Your task to perform on an android device: add a contact in the contacts app Image 0: 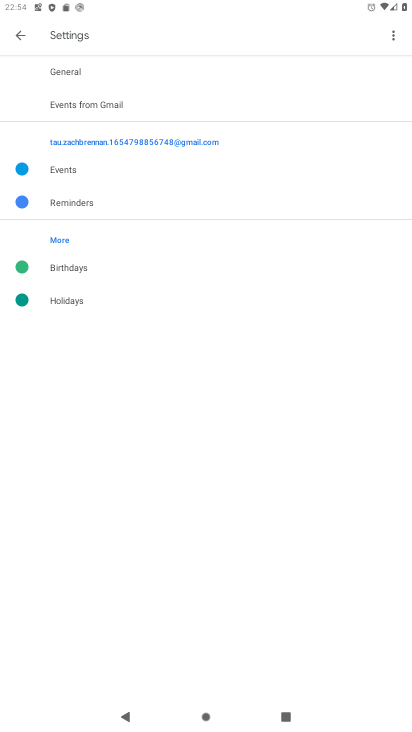
Step 0: press home button
Your task to perform on an android device: add a contact in the contacts app Image 1: 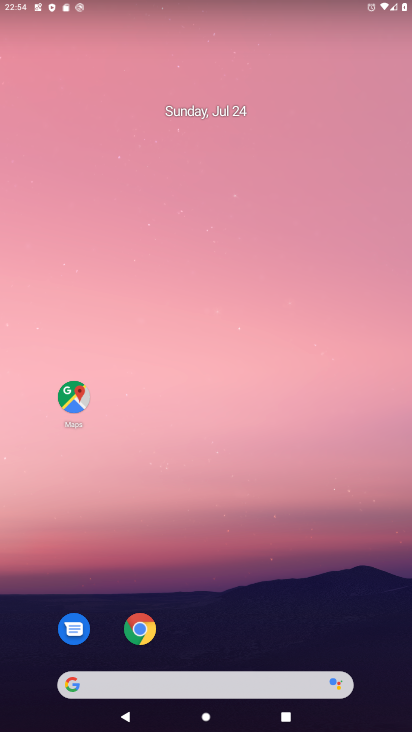
Step 1: drag from (259, 629) to (278, 302)
Your task to perform on an android device: add a contact in the contacts app Image 2: 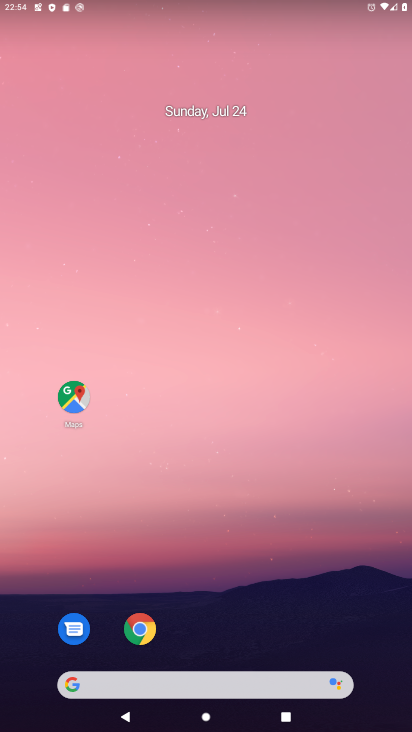
Step 2: drag from (164, 658) to (309, 77)
Your task to perform on an android device: add a contact in the contacts app Image 3: 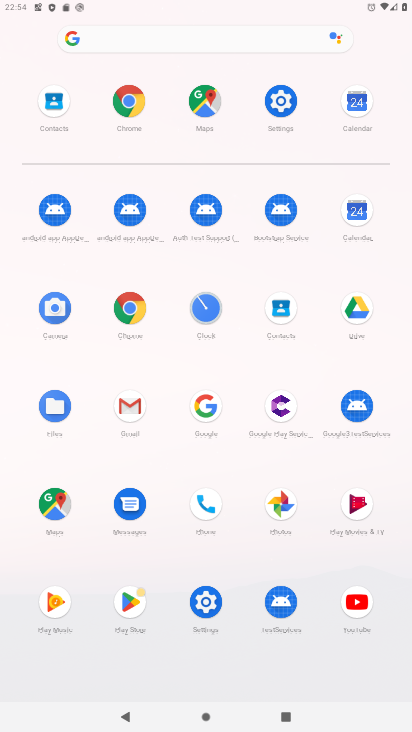
Step 3: click (287, 302)
Your task to perform on an android device: add a contact in the contacts app Image 4: 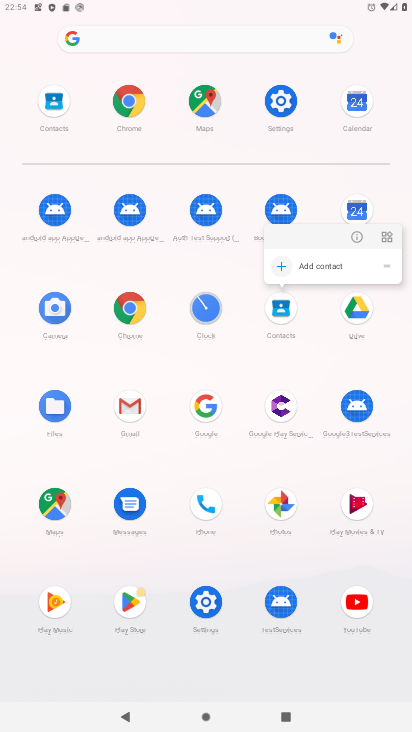
Step 4: click (355, 238)
Your task to perform on an android device: add a contact in the contacts app Image 5: 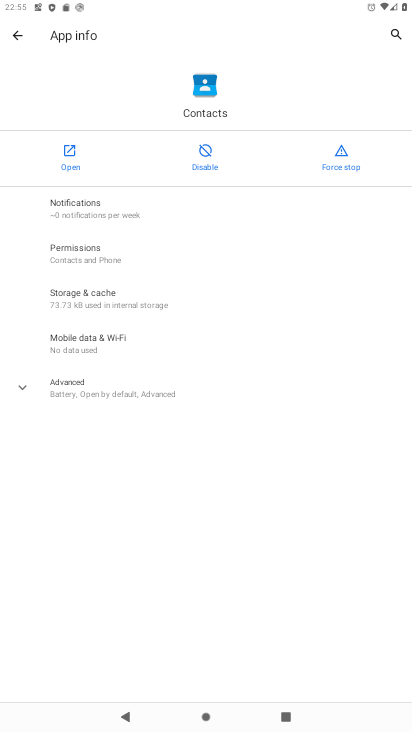
Step 5: click (71, 161)
Your task to perform on an android device: add a contact in the contacts app Image 6: 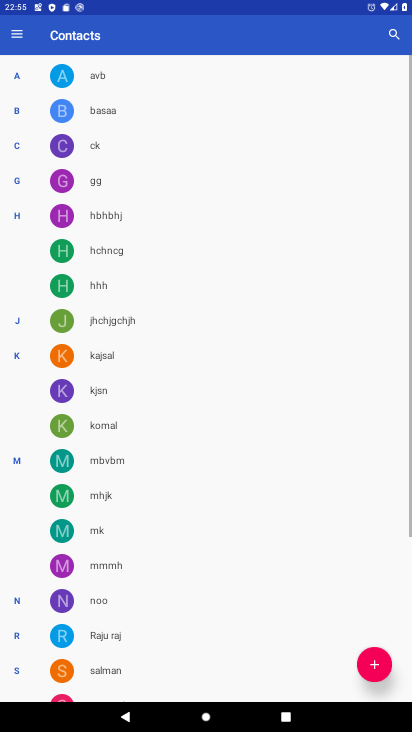
Step 6: drag from (241, 428) to (291, 245)
Your task to perform on an android device: add a contact in the contacts app Image 7: 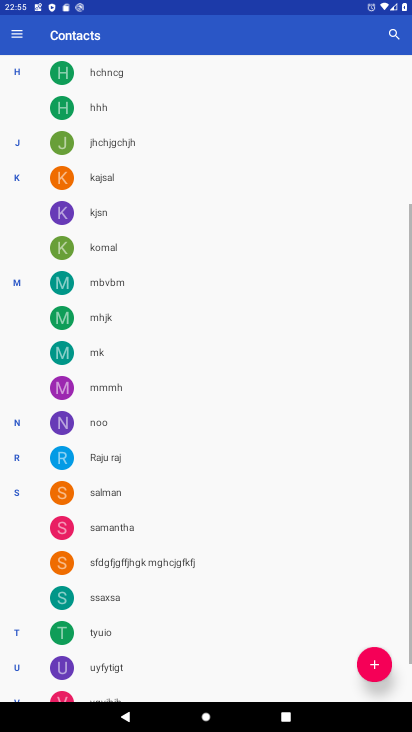
Step 7: drag from (255, 251) to (345, 730)
Your task to perform on an android device: add a contact in the contacts app Image 8: 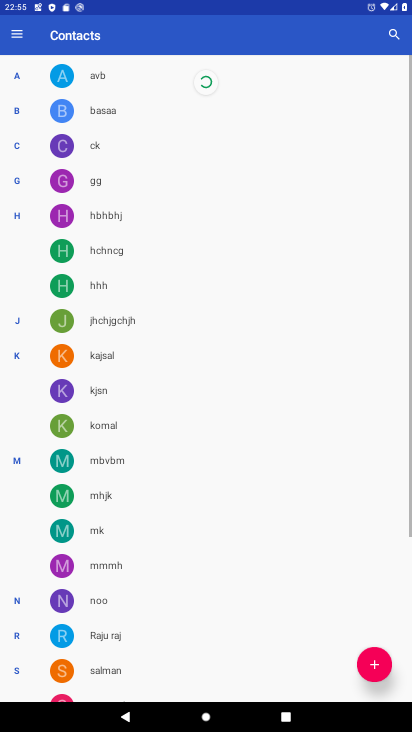
Step 8: click (380, 662)
Your task to perform on an android device: add a contact in the contacts app Image 9: 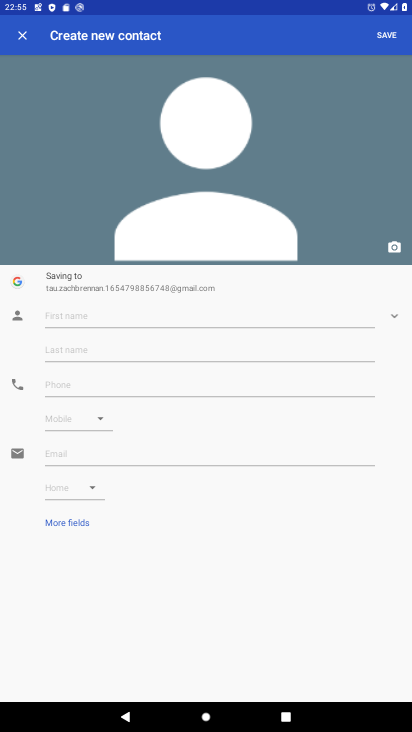
Step 9: click (106, 314)
Your task to perform on an android device: add a contact in the contacts app Image 10: 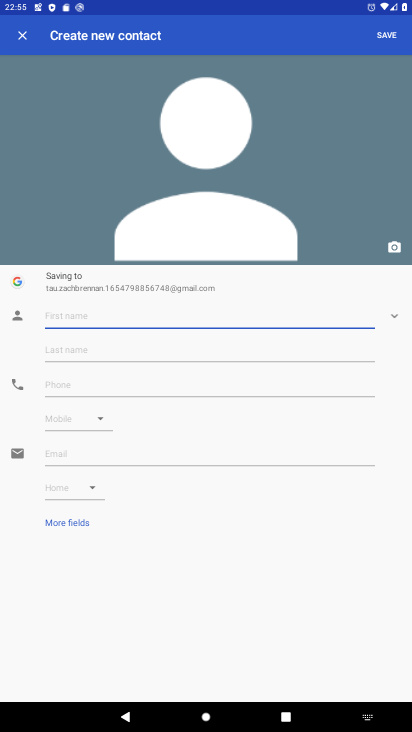
Step 10: type "malska"
Your task to perform on an android device: add a contact in the contacts app Image 11: 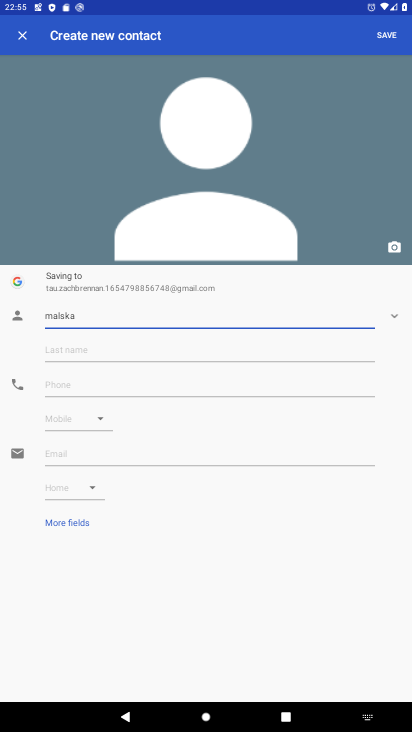
Step 11: click (186, 385)
Your task to perform on an android device: add a contact in the contacts app Image 12: 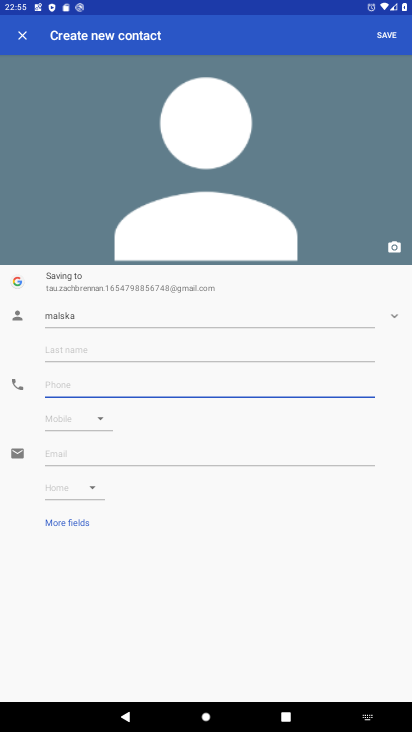
Step 12: type "9183131"
Your task to perform on an android device: add a contact in the contacts app Image 13: 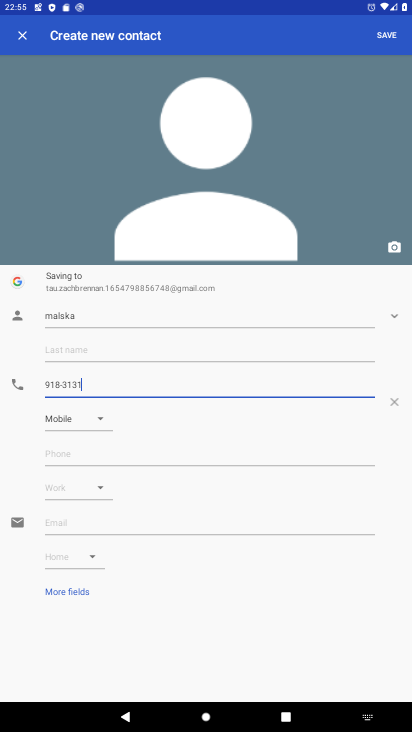
Step 13: click (380, 28)
Your task to perform on an android device: add a contact in the contacts app Image 14: 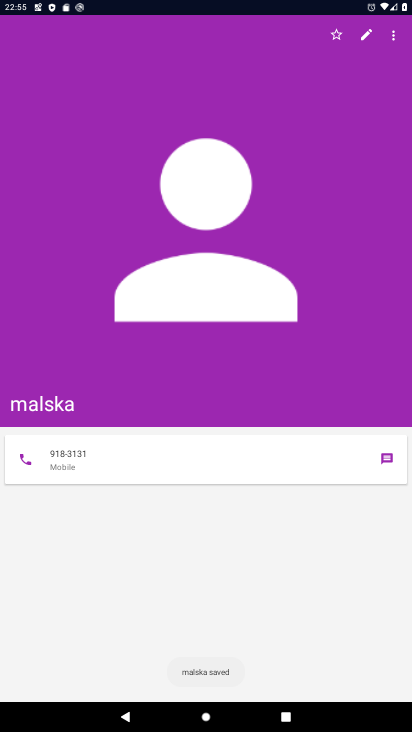
Step 14: task complete